Your task to perform on an android device: Open Google Maps Image 0: 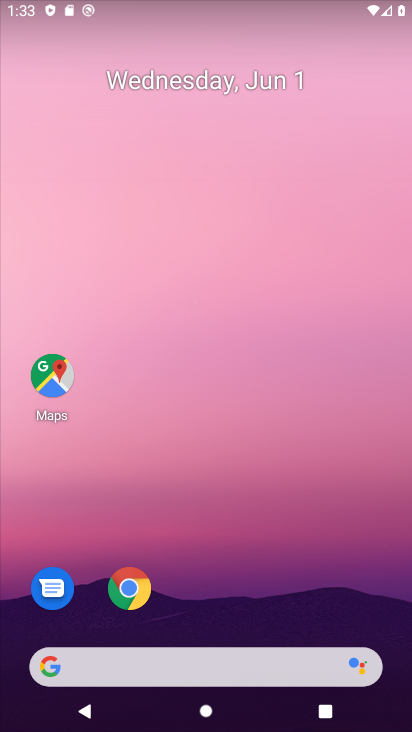
Step 0: click (147, 607)
Your task to perform on an android device: Open Google Maps Image 1: 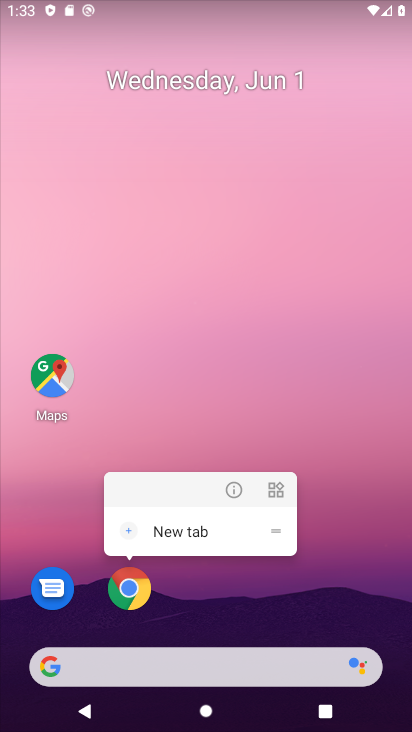
Step 1: click (65, 385)
Your task to perform on an android device: Open Google Maps Image 2: 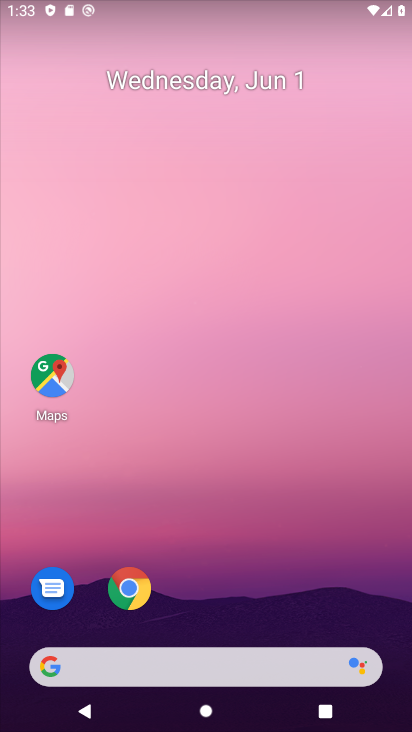
Step 2: click (57, 381)
Your task to perform on an android device: Open Google Maps Image 3: 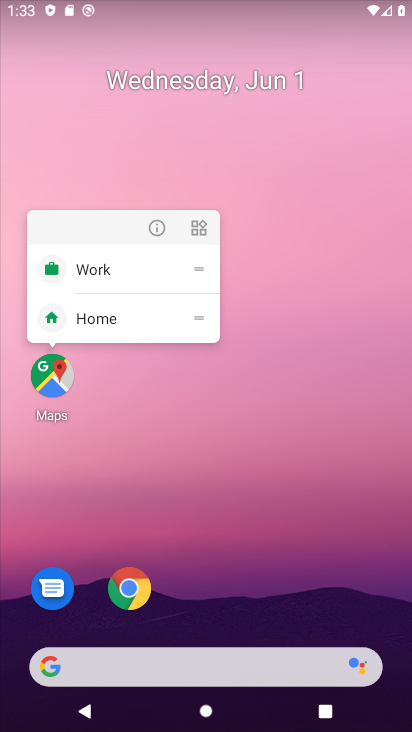
Step 3: click (58, 397)
Your task to perform on an android device: Open Google Maps Image 4: 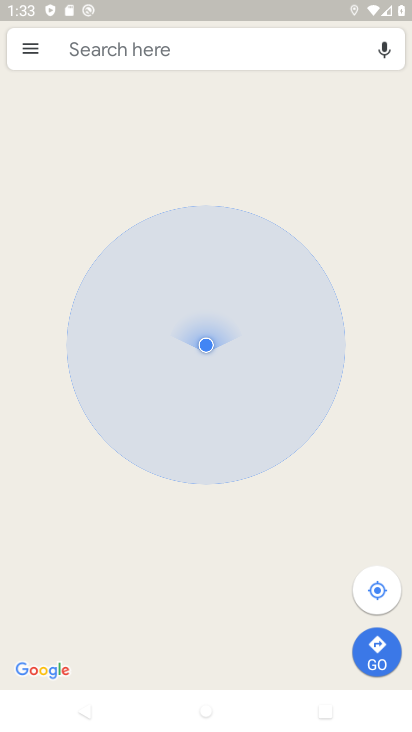
Step 4: task complete